Your task to perform on an android device: Do I have any events tomorrow? Image 0: 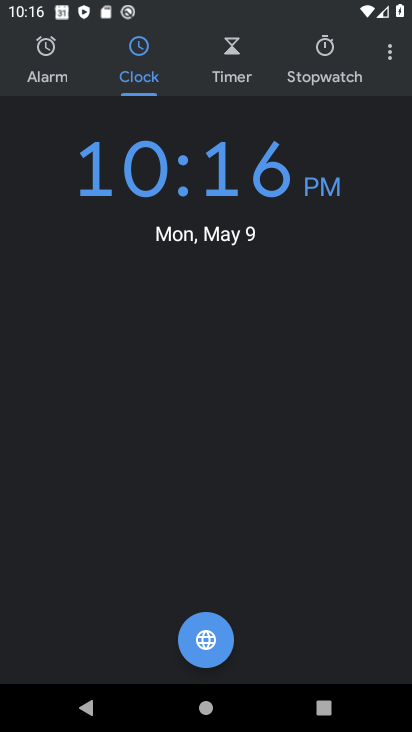
Step 0: press home button
Your task to perform on an android device: Do I have any events tomorrow? Image 1: 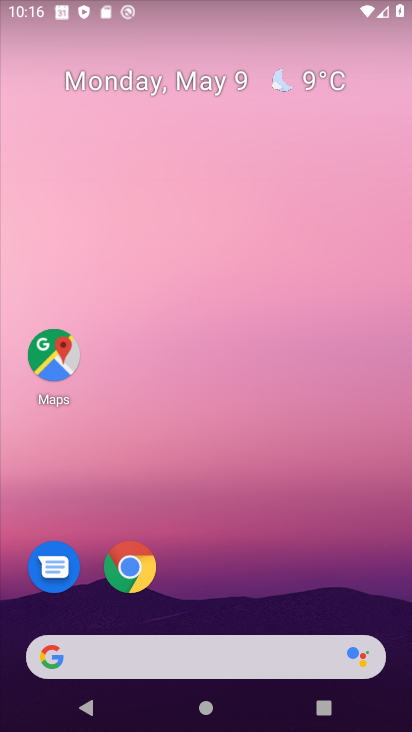
Step 1: drag from (204, 612) to (242, 21)
Your task to perform on an android device: Do I have any events tomorrow? Image 2: 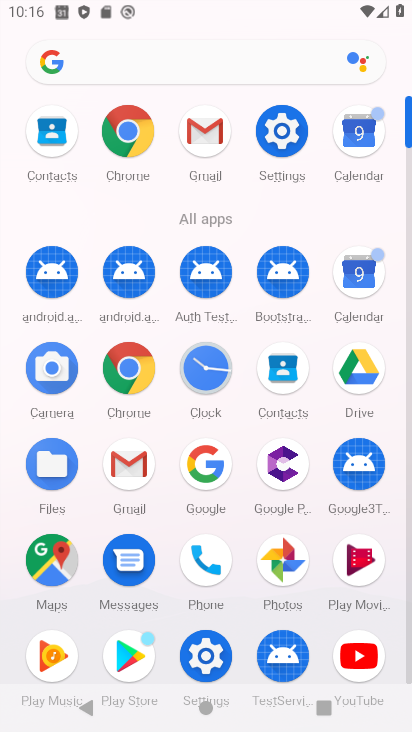
Step 2: click (358, 267)
Your task to perform on an android device: Do I have any events tomorrow? Image 3: 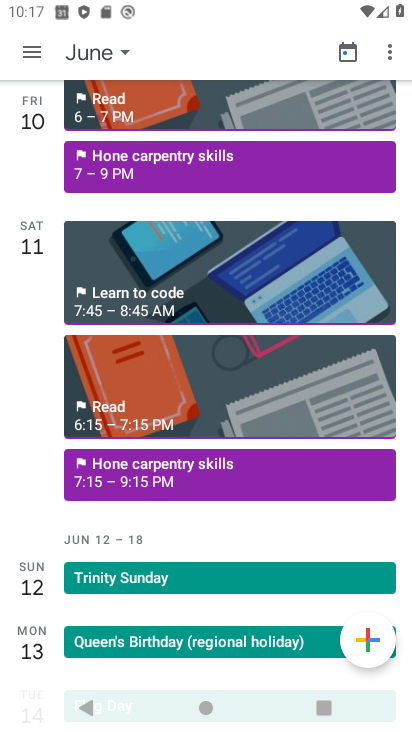
Step 3: click (38, 48)
Your task to perform on an android device: Do I have any events tomorrow? Image 4: 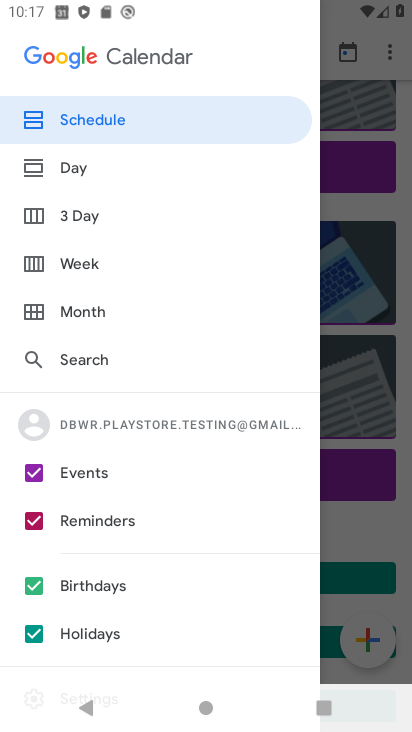
Step 4: click (33, 635)
Your task to perform on an android device: Do I have any events tomorrow? Image 5: 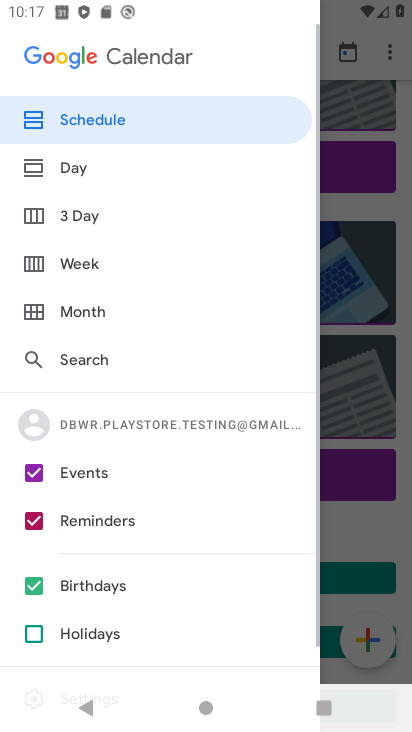
Step 5: drag from (34, 583) to (36, 514)
Your task to perform on an android device: Do I have any events tomorrow? Image 6: 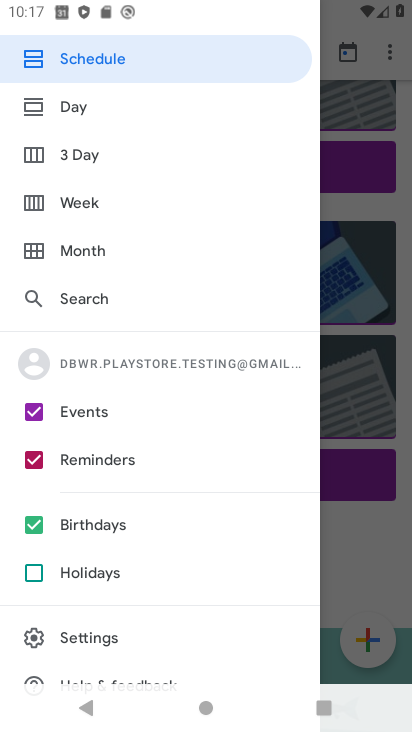
Step 6: click (35, 519)
Your task to perform on an android device: Do I have any events tomorrow? Image 7: 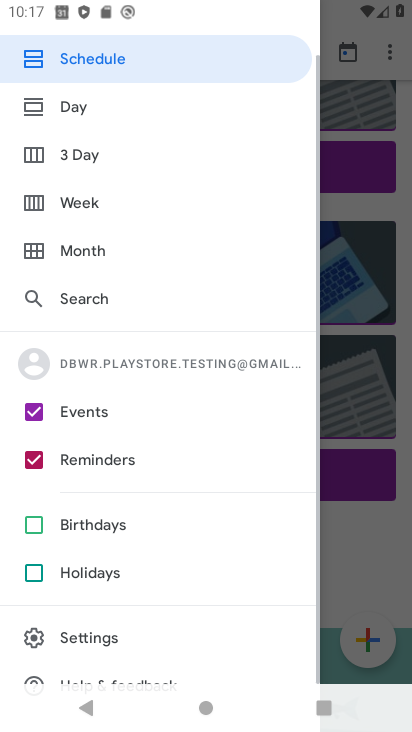
Step 7: click (37, 457)
Your task to perform on an android device: Do I have any events tomorrow? Image 8: 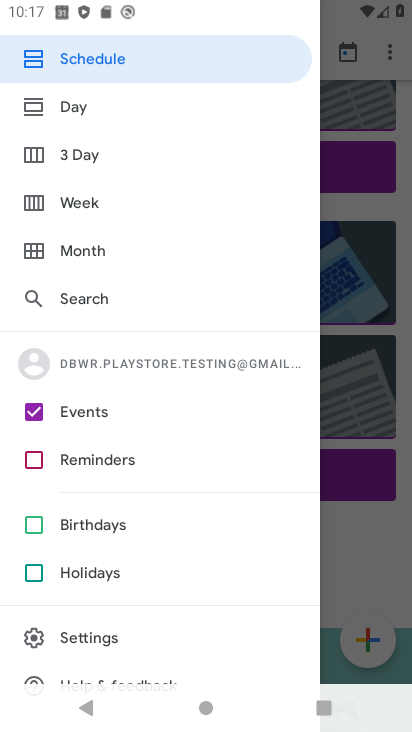
Step 8: click (52, 100)
Your task to perform on an android device: Do I have any events tomorrow? Image 9: 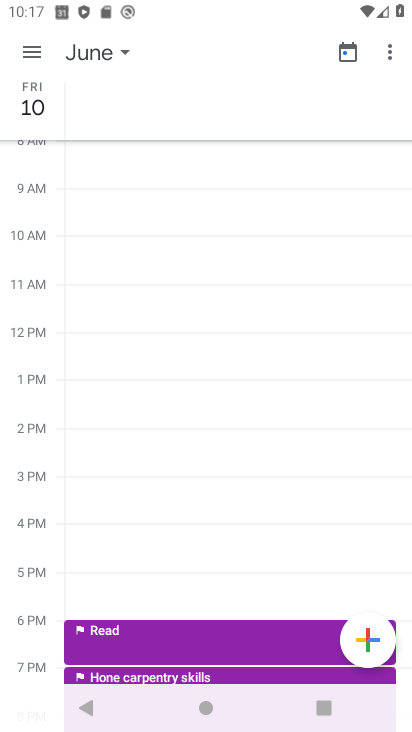
Step 9: click (50, 114)
Your task to perform on an android device: Do I have any events tomorrow? Image 10: 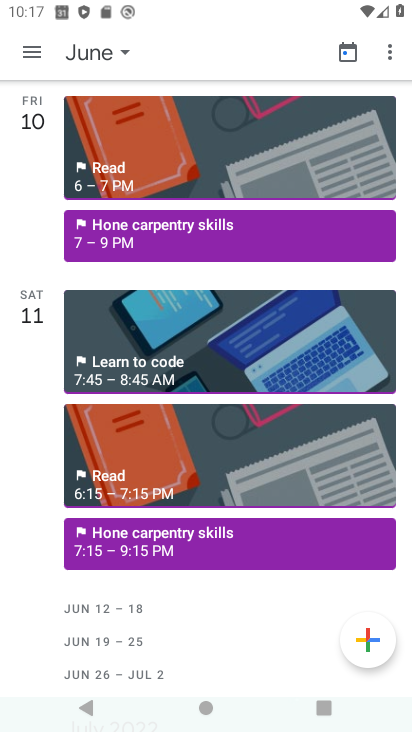
Step 10: click (114, 52)
Your task to perform on an android device: Do I have any events tomorrow? Image 11: 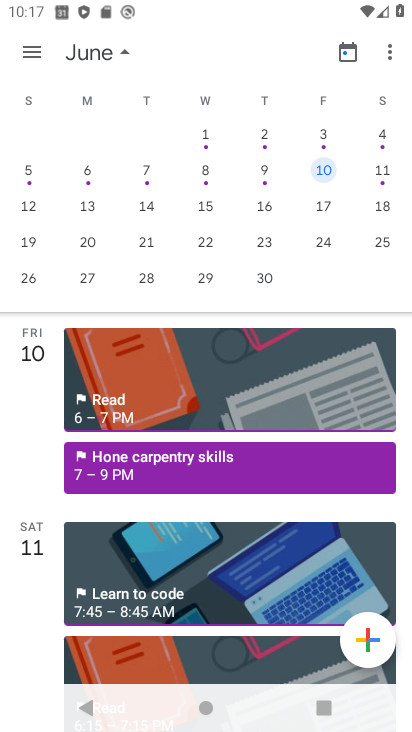
Step 11: drag from (86, 193) to (402, 190)
Your task to perform on an android device: Do I have any events tomorrow? Image 12: 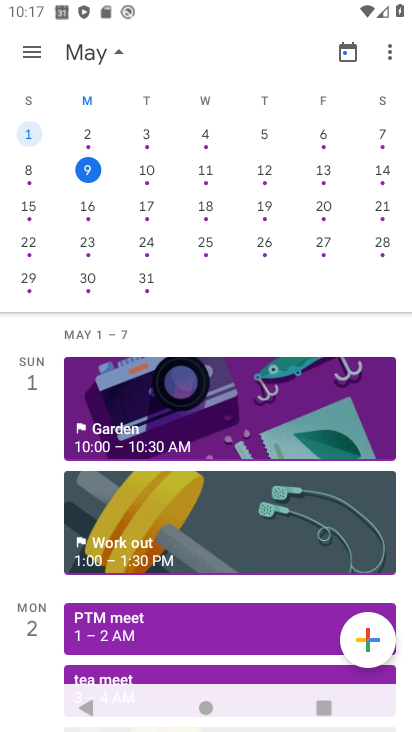
Step 12: click (91, 167)
Your task to perform on an android device: Do I have any events tomorrow? Image 13: 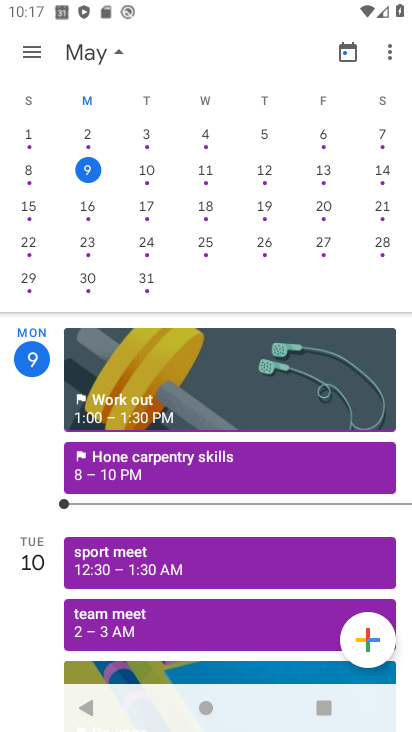
Step 13: click (34, 592)
Your task to perform on an android device: Do I have any events tomorrow? Image 14: 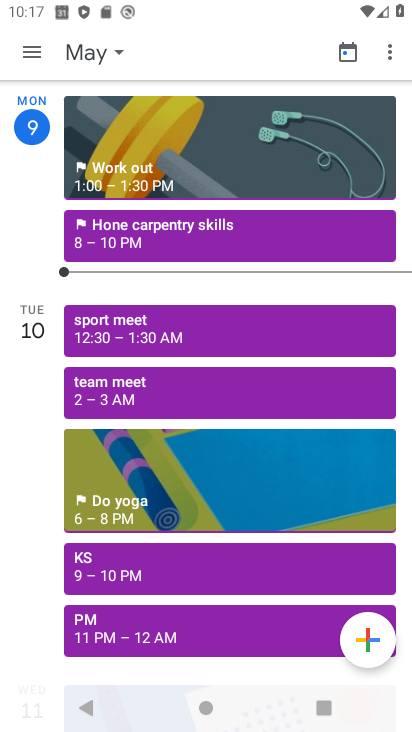
Step 14: click (33, 342)
Your task to perform on an android device: Do I have any events tomorrow? Image 15: 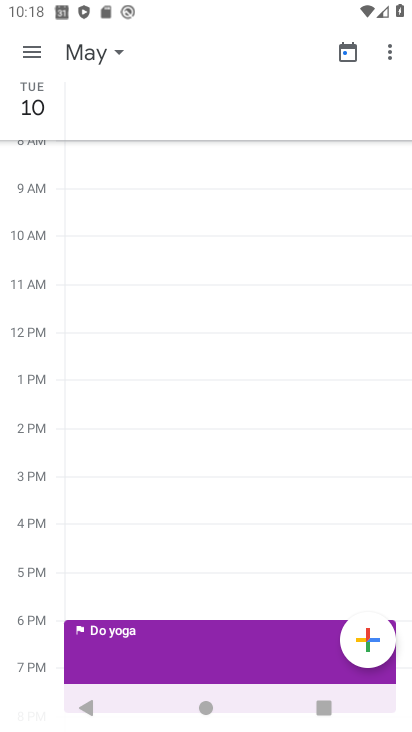
Step 15: drag from (25, 220) to (30, 600)
Your task to perform on an android device: Do I have any events tomorrow? Image 16: 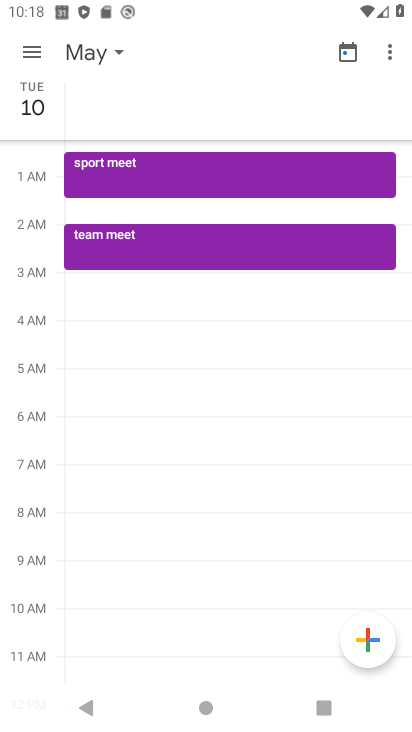
Step 16: drag from (37, 628) to (40, 151)
Your task to perform on an android device: Do I have any events tomorrow? Image 17: 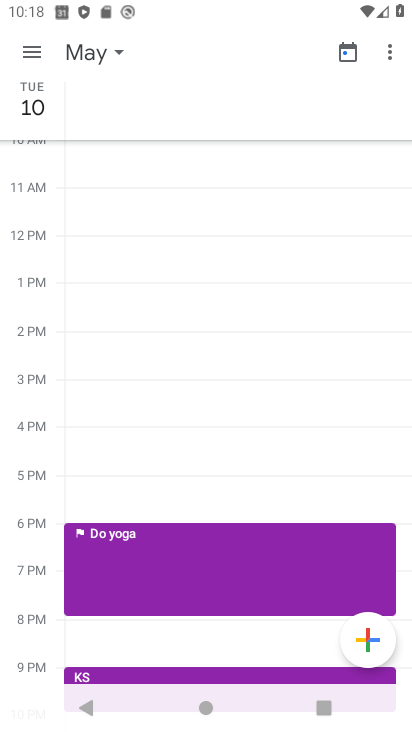
Step 17: drag from (30, 628) to (26, 214)
Your task to perform on an android device: Do I have any events tomorrow? Image 18: 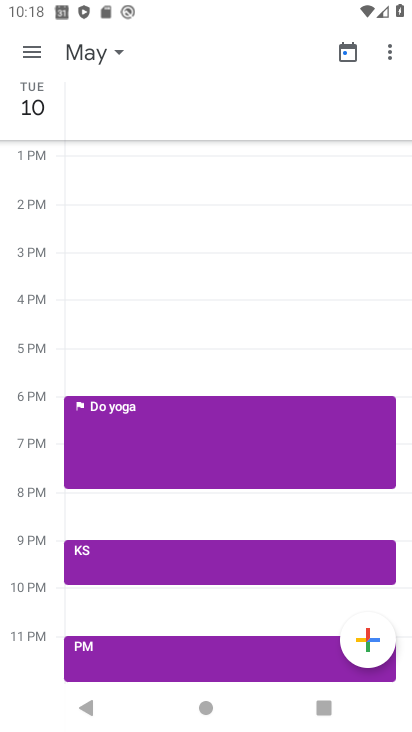
Step 18: click (34, 149)
Your task to perform on an android device: Do I have any events tomorrow? Image 19: 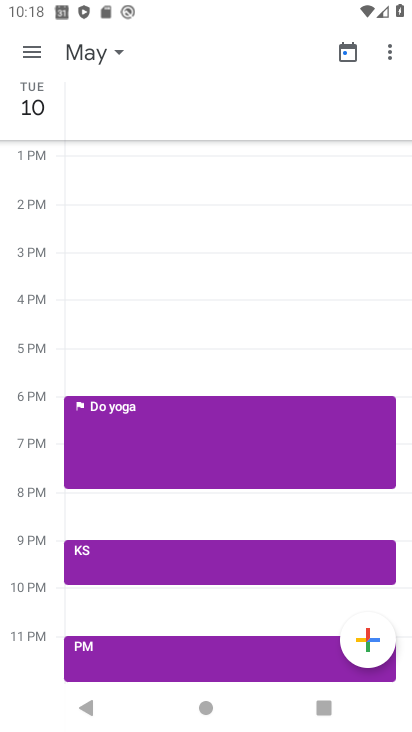
Step 19: task complete